Your task to perform on an android device: Search for bose quietcomfort 35 on costco.com, select the first entry, and add it to the cart. Image 0: 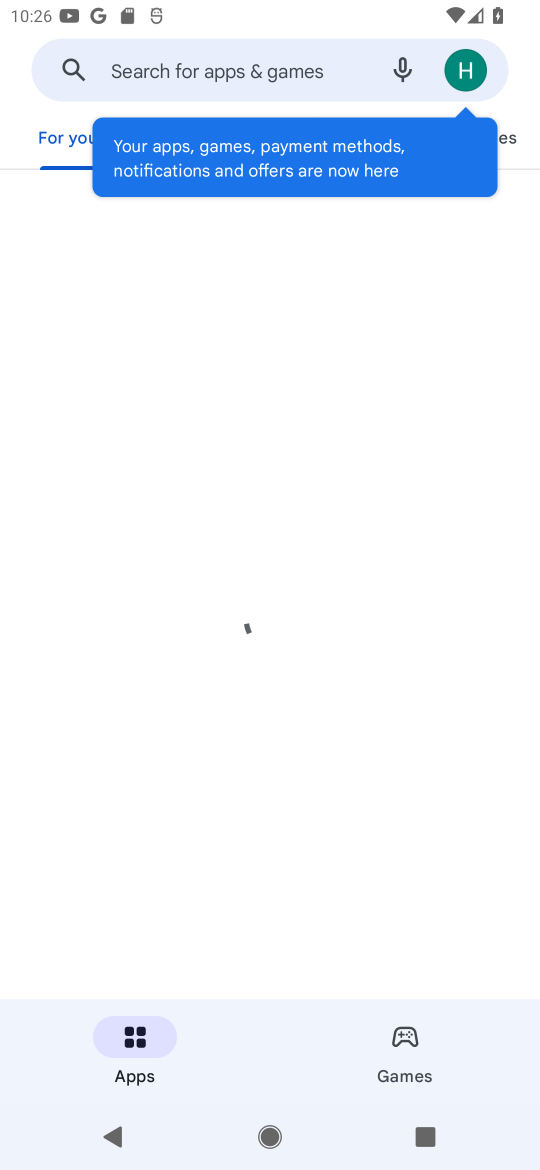
Step 0: press home button
Your task to perform on an android device: Search for bose quietcomfort 35 on costco.com, select the first entry, and add it to the cart. Image 1: 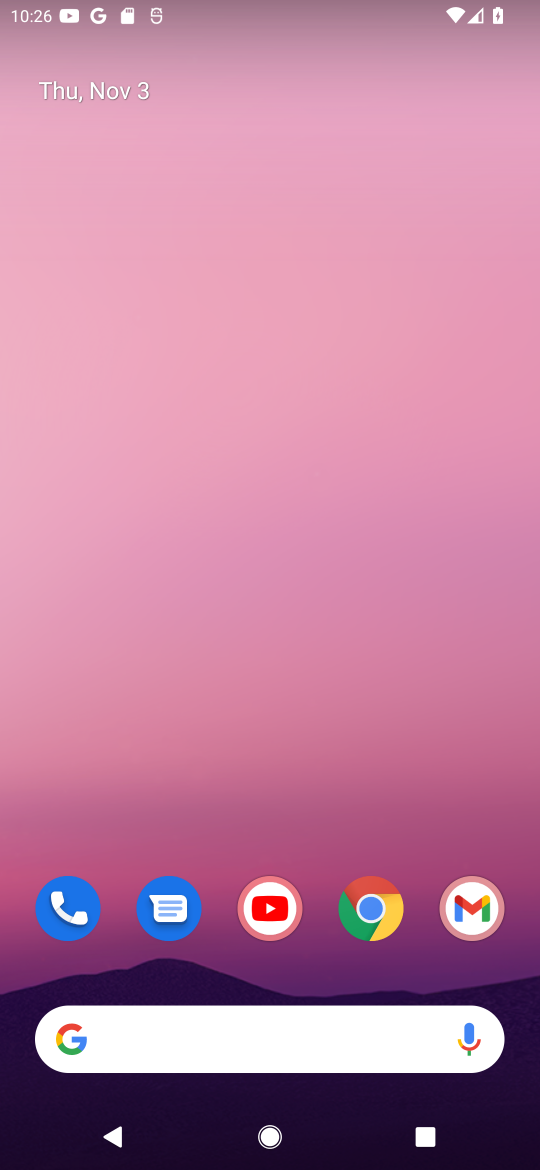
Step 1: click (363, 894)
Your task to perform on an android device: Search for bose quietcomfort 35 on costco.com, select the first entry, and add it to the cart. Image 2: 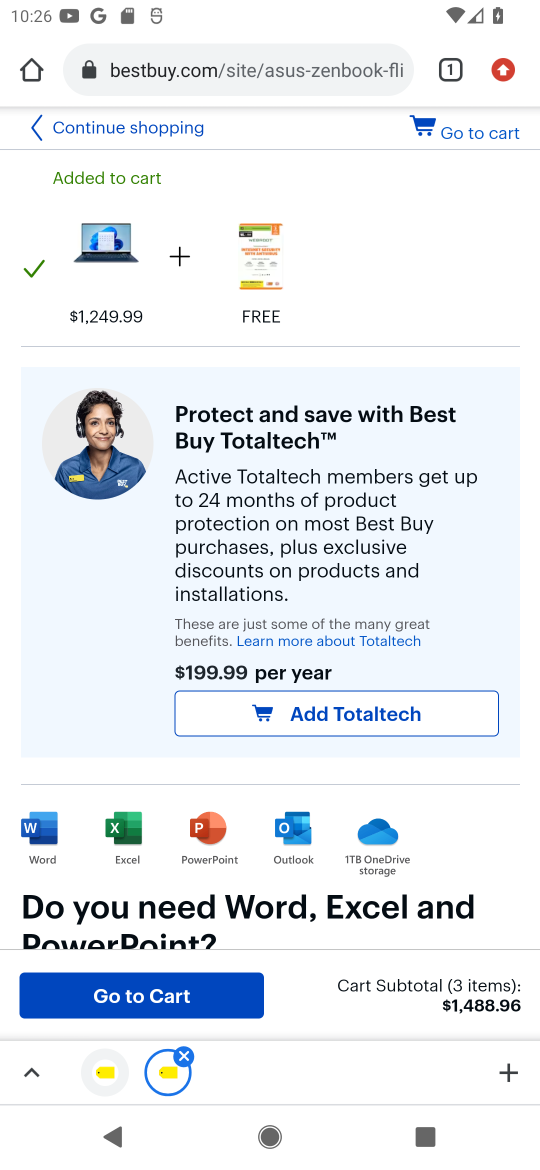
Step 2: click (249, 68)
Your task to perform on an android device: Search for bose quietcomfort 35 on costco.com, select the first entry, and add it to the cart. Image 3: 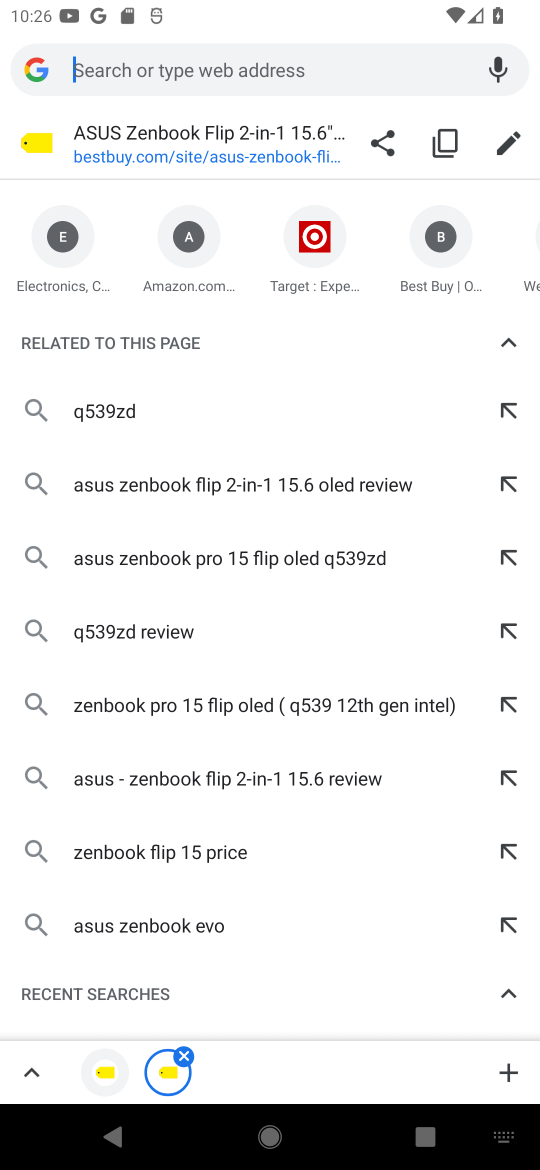
Step 3: press enter
Your task to perform on an android device: Search for bose quietcomfort 35 on costco.com, select the first entry, and add it to the cart. Image 4: 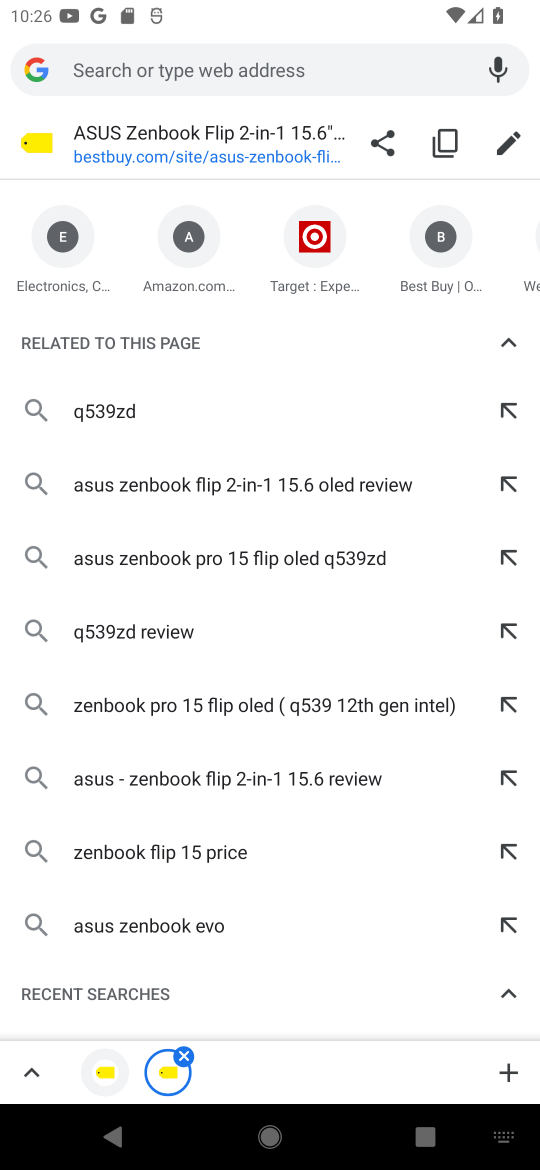
Step 4: type "costco.com"
Your task to perform on an android device: Search for bose quietcomfort 35 on costco.com, select the first entry, and add it to the cart. Image 5: 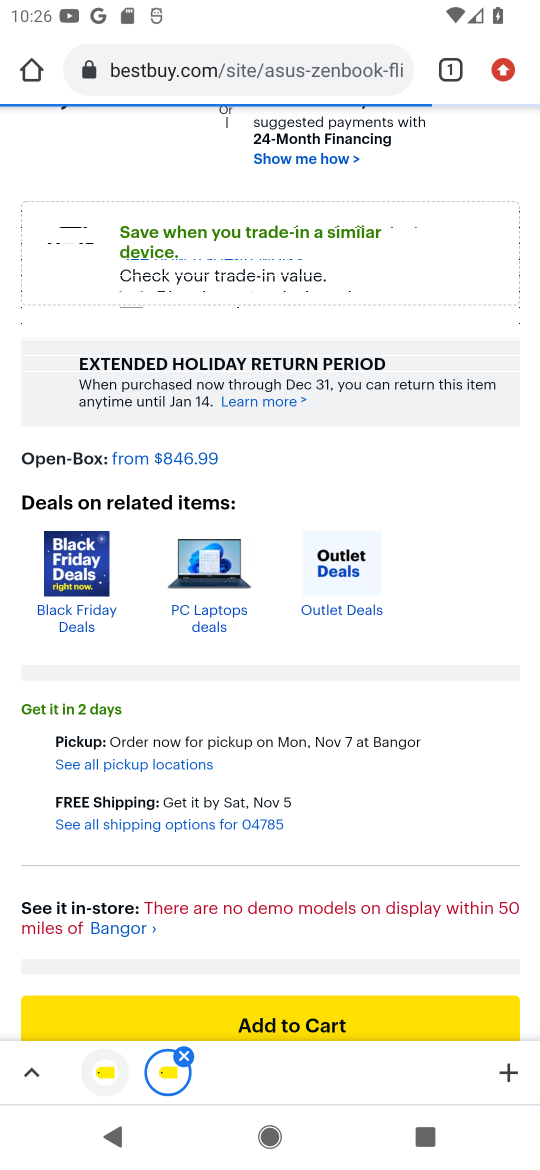
Step 5: drag from (366, 324) to (426, 912)
Your task to perform on an android device: Search for bose quietcomfort 35 on costco.com, select the first entry, and add it to the cart. Image 6: 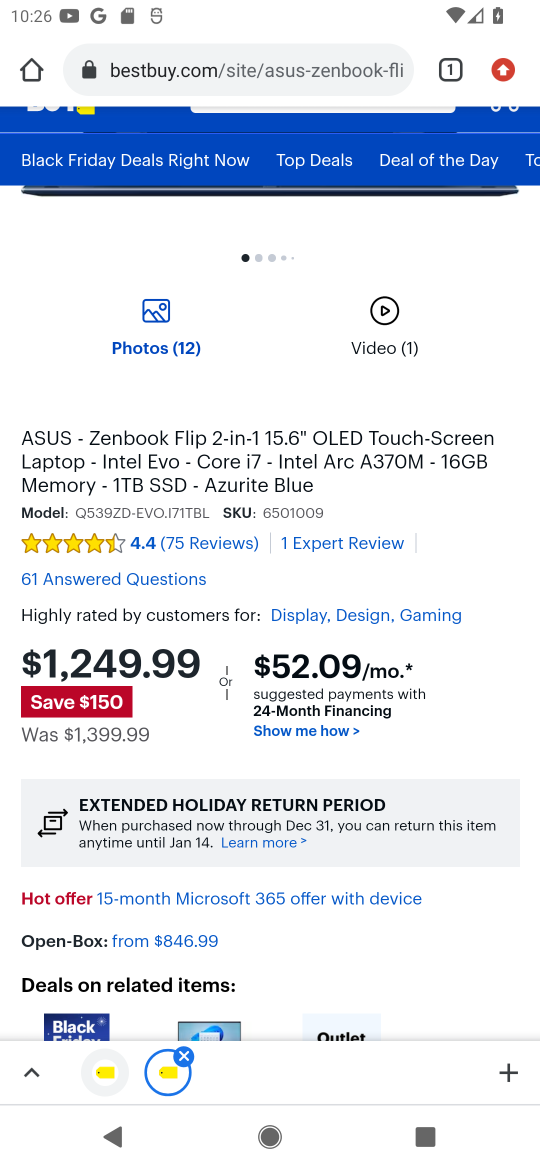
Step 6: drag from (348, 473) to (429, 982)
Your task to perform on an android device: Search for bose quietcomfort 35 on costco.com, select the first entry, and add it to the cart. Image 7: 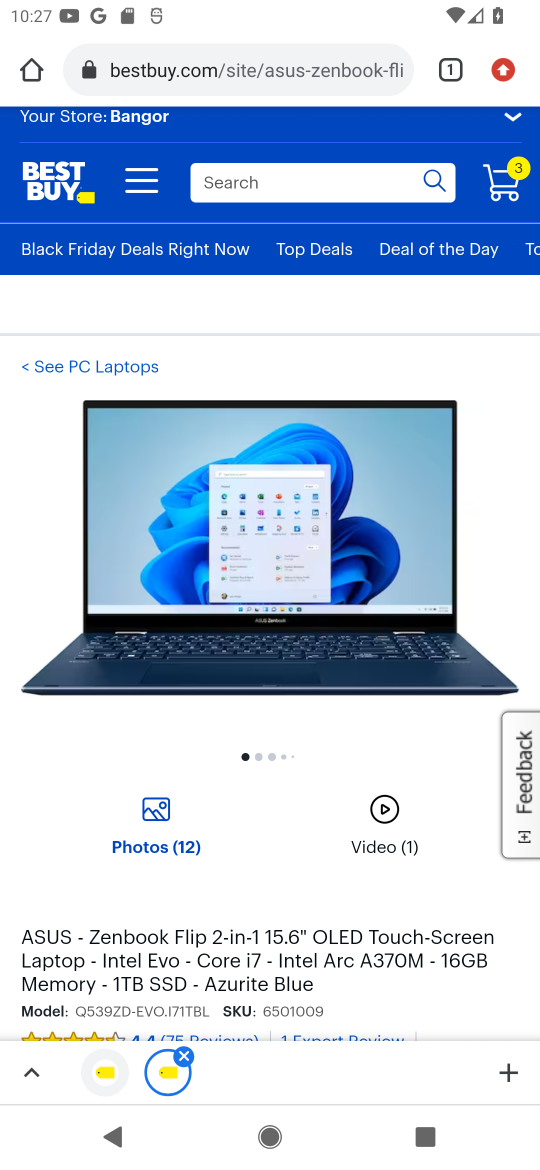
Step 7: click (282, 178)
Your task to perform on an android device: Search for bose quietcomfort 35 on costco.com, select the first entry, and add it to the cart. Image 8: 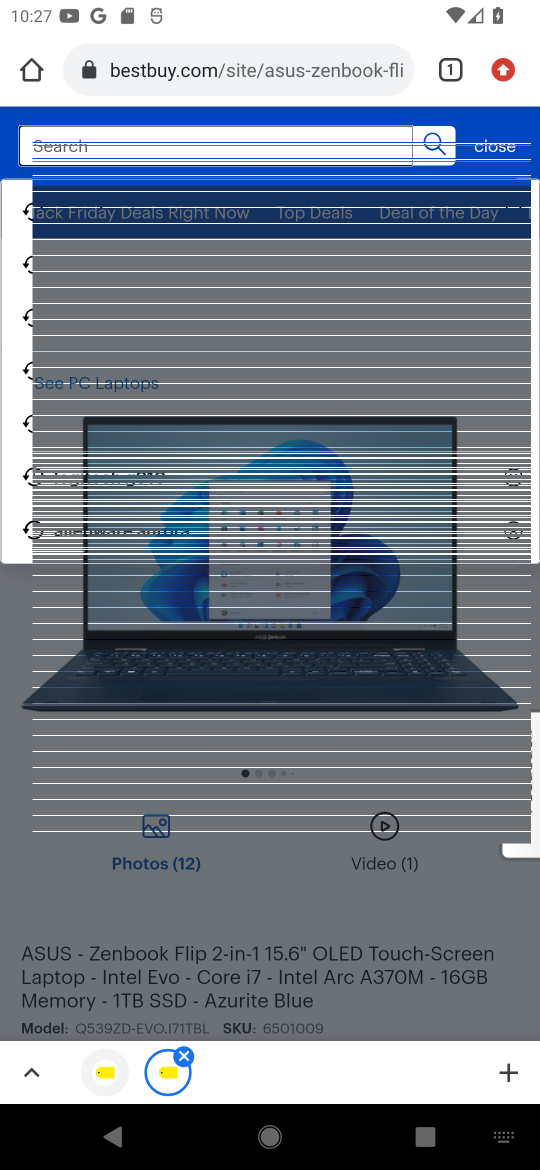
Step 8: type "bose quietcomfort 35"
Your task to perform on an android device: Search for bose quietcomfort 35 on costco.com, select the first entry, and add it to the cart. Image 9: 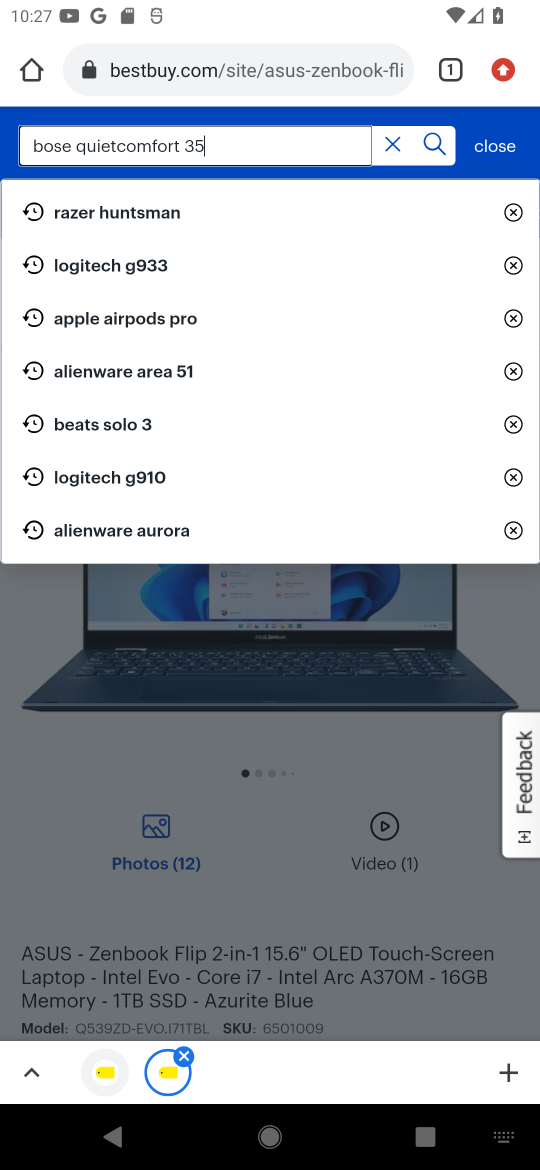
Step 9: press enter
Your task to perform on an android device: Search for bose quietcomfort 35 on costco.com, select the first entry, and add it to the cart. Image 10: 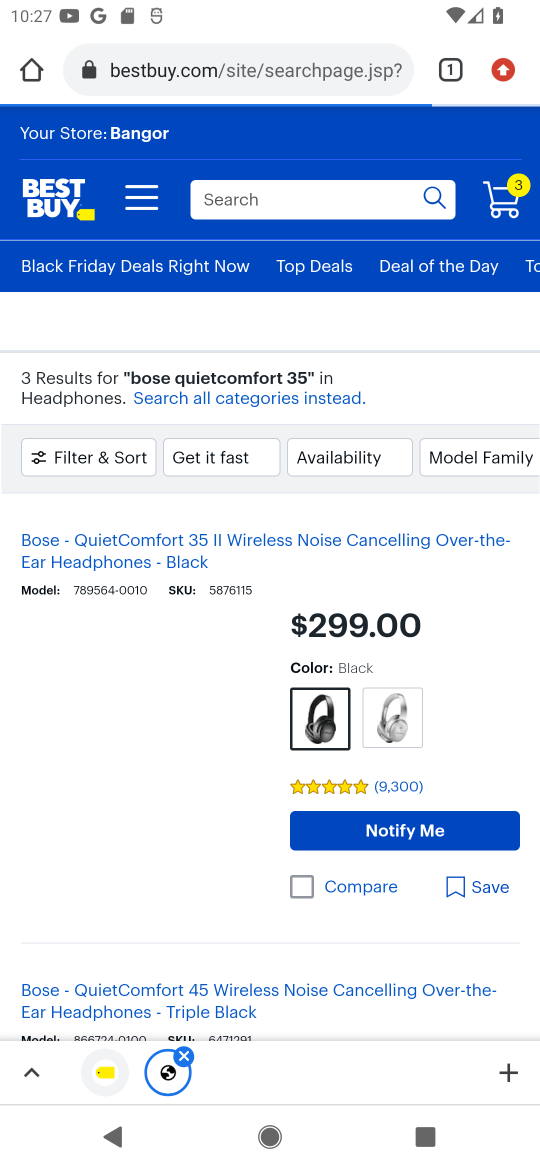
Step 10: click (356, 502)
Your task to perform on an android device: Search for bose quietcomfort 35 on costco.com, select the first entry, and add it to the cart. Image 11: 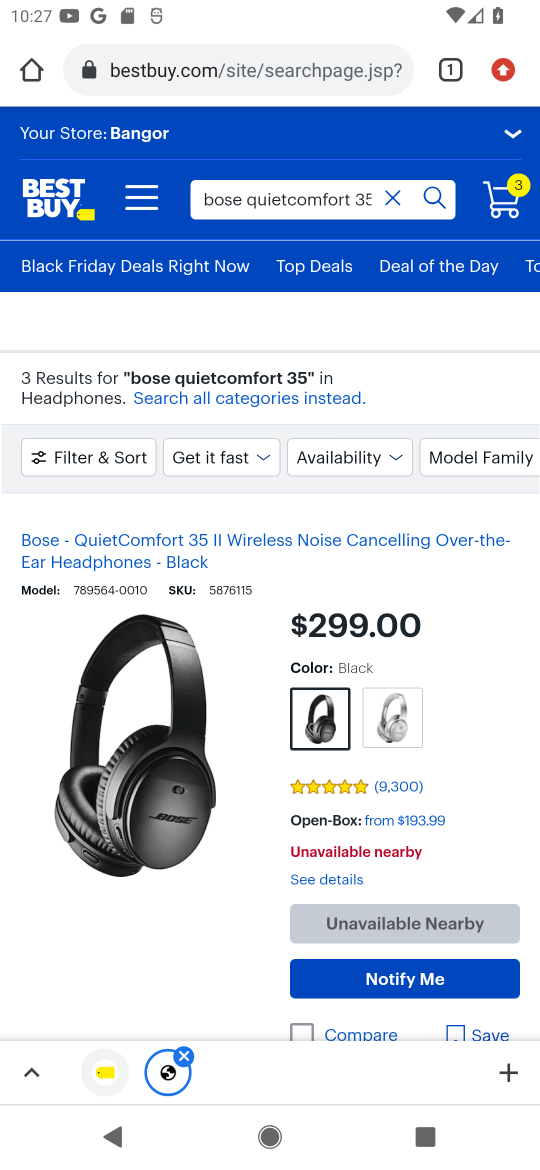
Step 11: click (163, 742)
Your task to perform on an android device: Search for bose quietcomfort 35 on costco.com, select the first entry, and add it to the cart. Image 12: 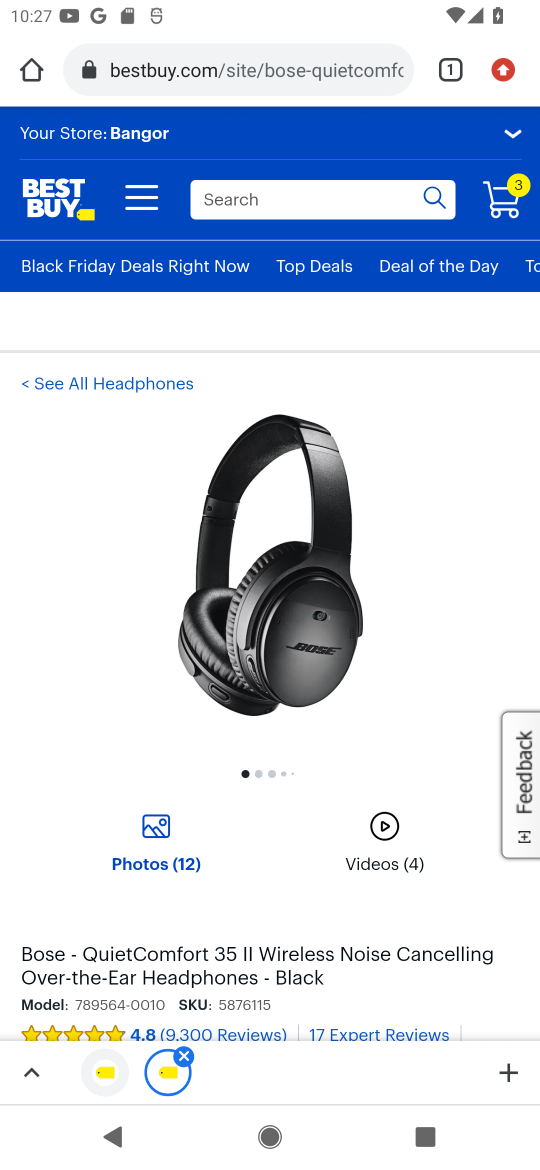
Step 12: drag from (345, 871) to (391, 549)
Your task to perform on an android device: Search for bose quietcomfort 35 on costco.com, select the first entry, and add it to the cart. Image 13: 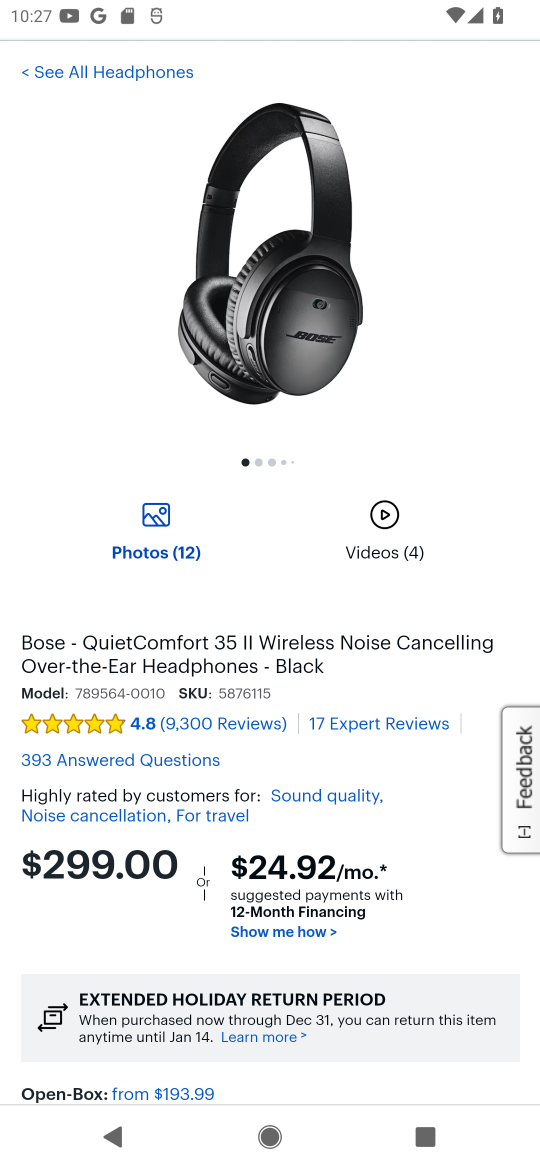
Step 13: drag from (424, 883) to (430, 557)
Your task to perform on an android device: Search for bose quietcomfort 35 on costco.com, select the first entry, and add it to the cart. Image 14: 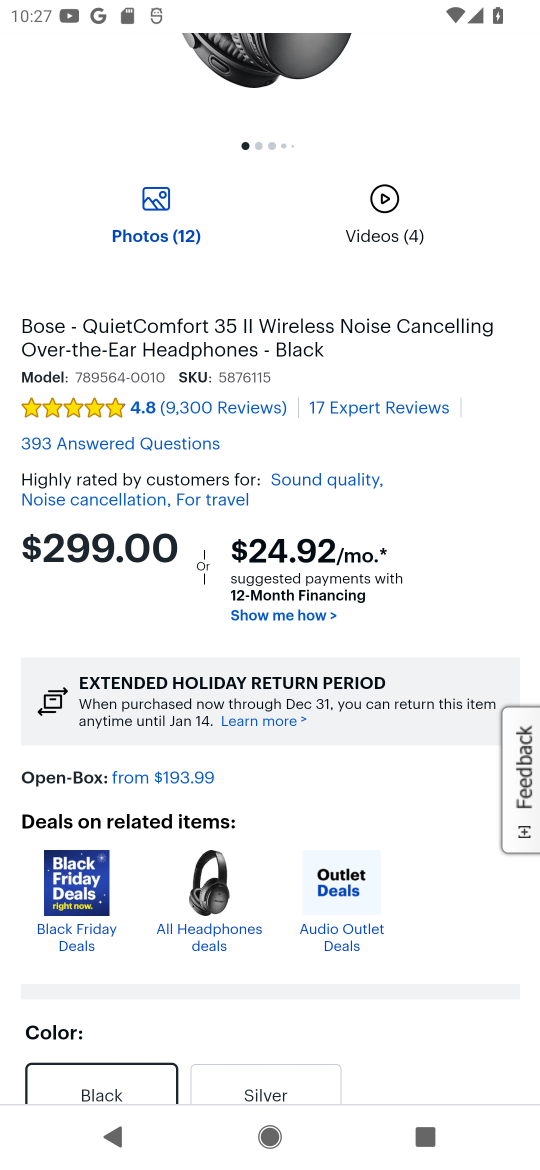
Step 14: drag from (451, 933) to (439, 544)
Your task to perform on an android device: Search for bose quietcomfort 35 on costco.com, select the first entry, and add it to the cart. Image 15: 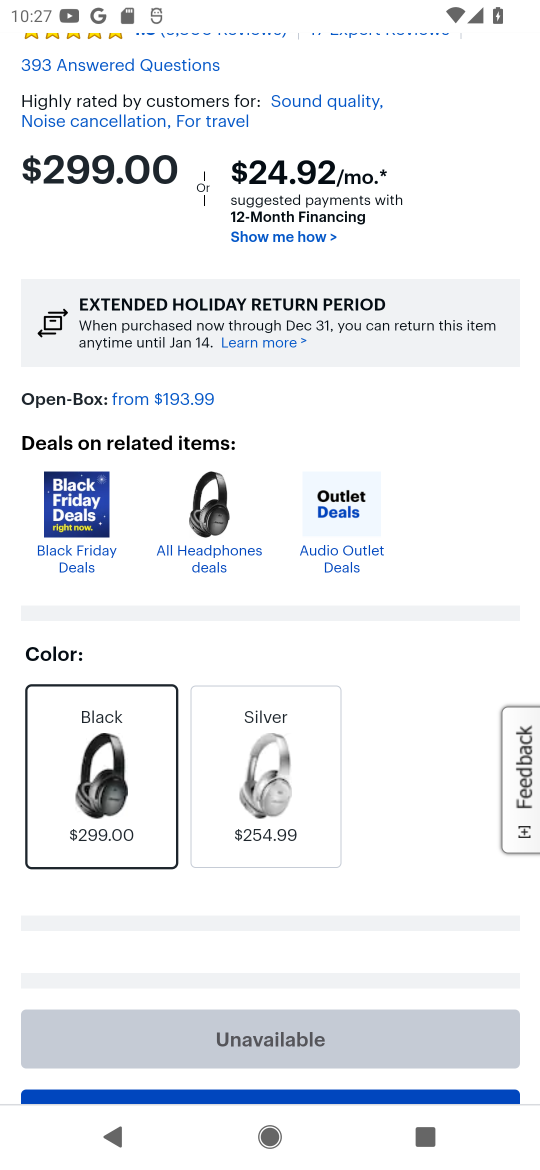
Step 15: press back button
Your task to perform on an android device: Search for bose quietcomfort 35 on costco.com, select the first entry, and add it to the cart. Image 16: 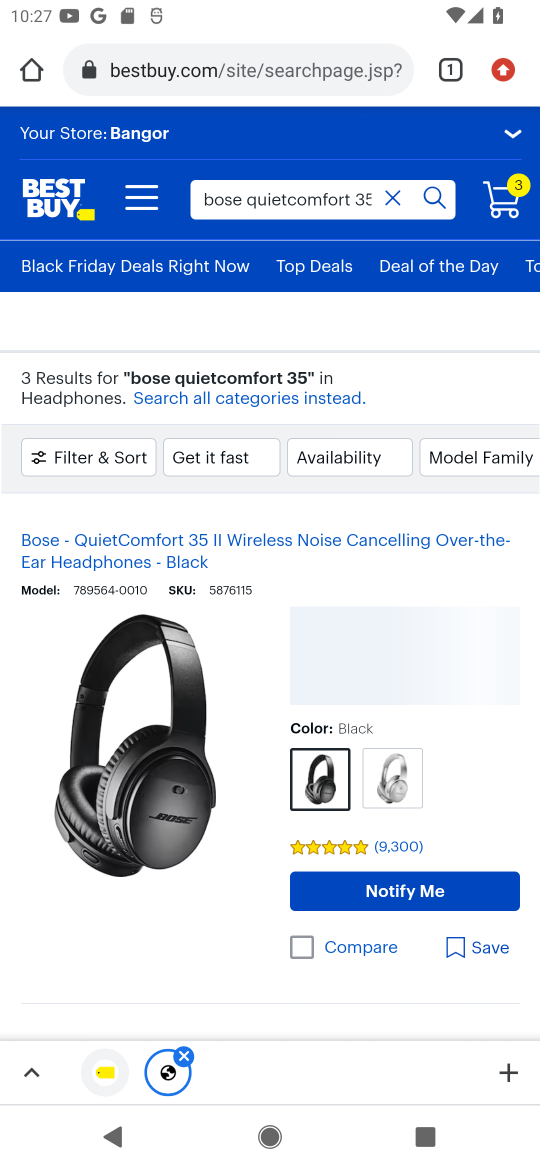
Step 16: drag from (425, 824) to (511, 328)
Your task to perform on an android device: Search for bose quietcomfort 35 on costco.com, select the first entry, and add it to the cart. Image 17: 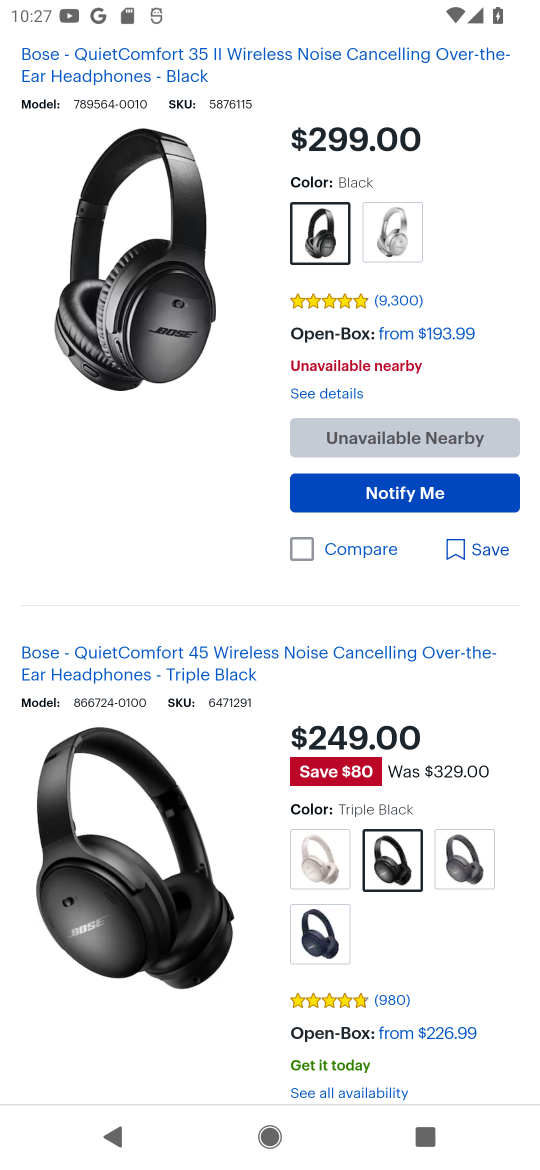
Step 17: drag from (202, 670) to (281, 380)
Your task to perform on an android device: Search for bose quietcomfort 35 on costco.com, select the first entry, and add it to the cart. Image 18: 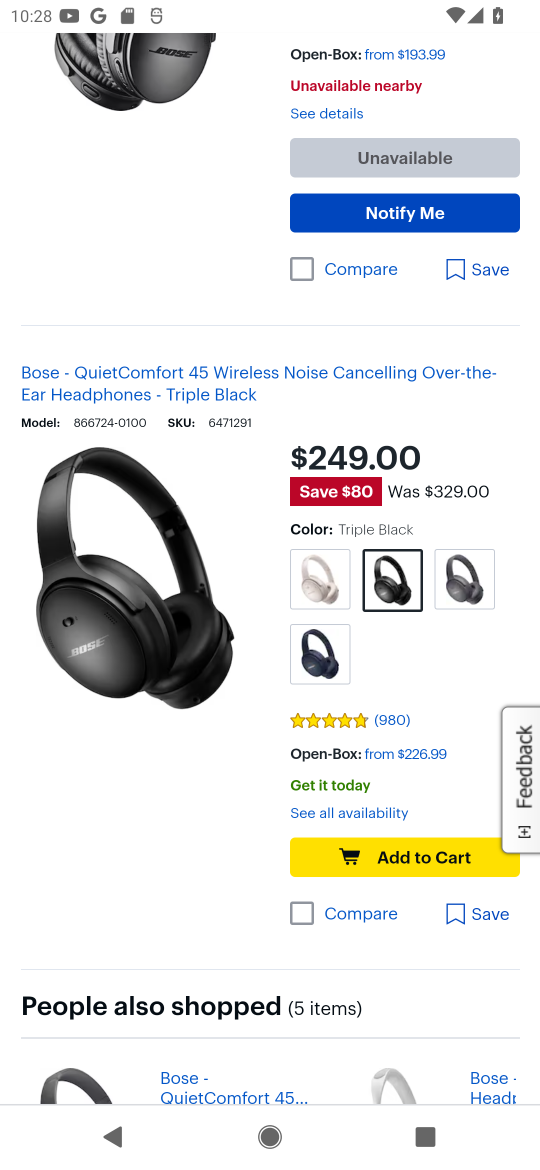
Step 18: drag from (190, 866) to (195, 394)
Your task to perform on an android device: Search for bose quietcomfort 35 on costco.com, select the first entry, and add it to the cart. Image 19: 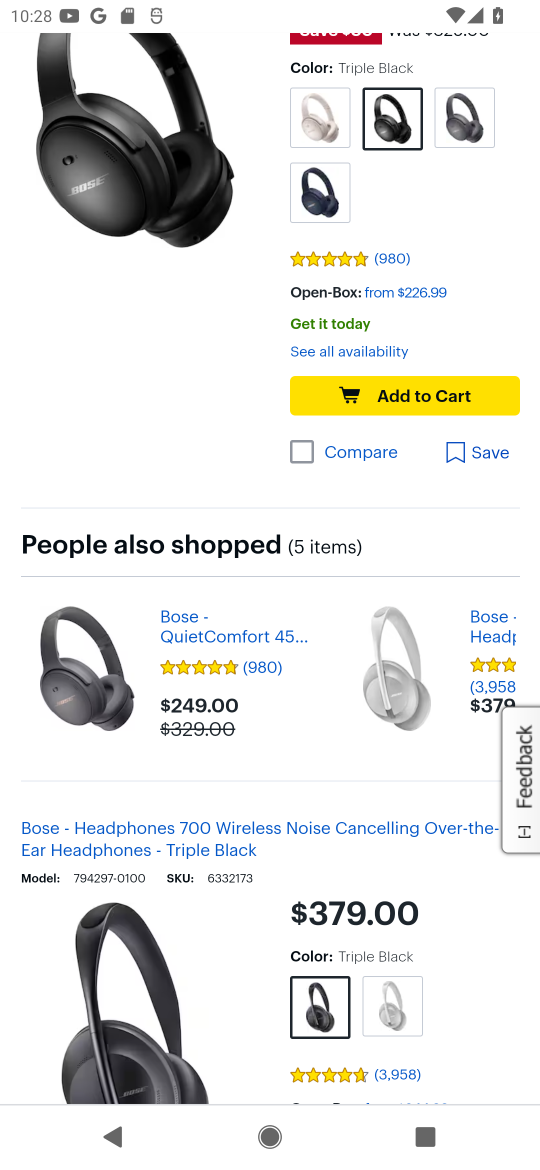
Step 19: drag from (449, 656) to (147, 636)
Your task to perform on an android device: Search for bose quietcomfort 35 on costco.com, select the first entry, and add it to the cart. Image 20: 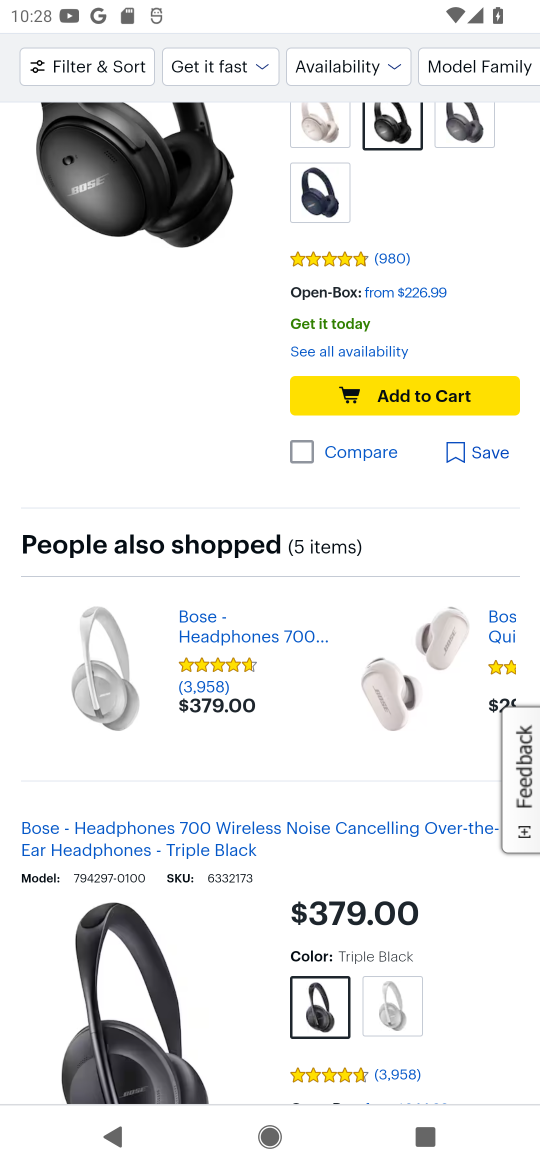
Step 20: drag from (215, 887) to (276, 530)
Your task to perform on an android device: Search for bose quietcomfort 35 on costco.com, select the first entry, and add it to the cart. Image 21: 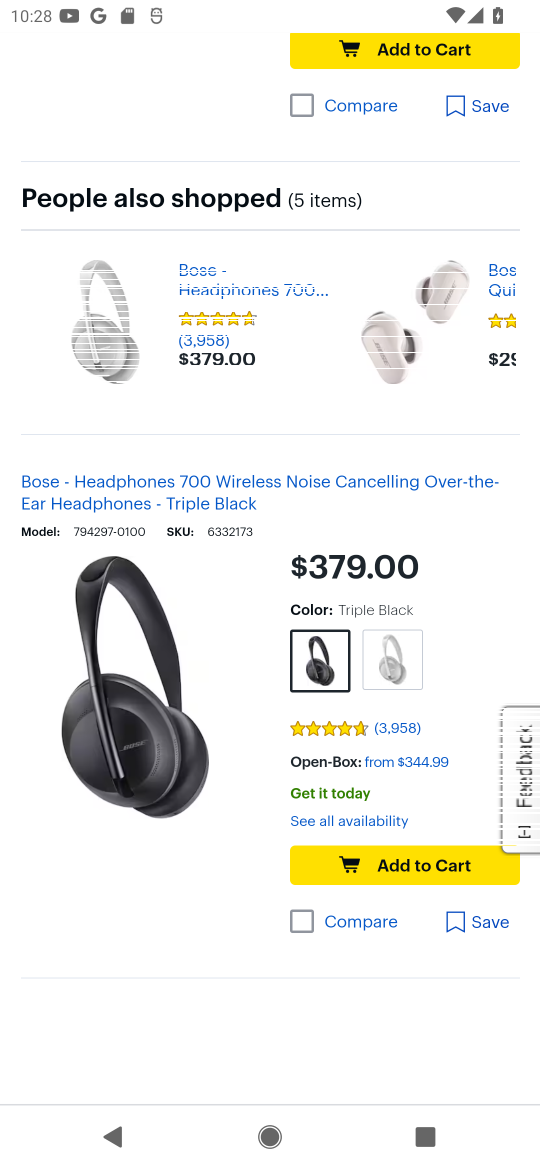
Step 21: drag from (239, 806) to (239, 450)
Your task to perform on an android device: Search for bose quietcomfort 35 on costco.com, select the first entry, and add it to the cart. Image 22: 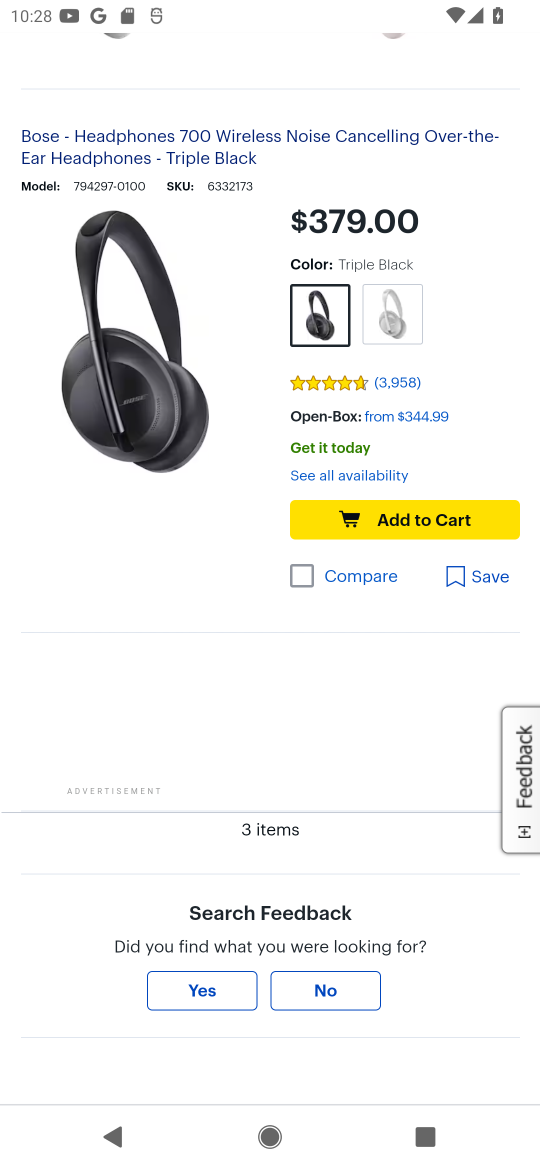
Step 22: press back button
Your task to perform on an android device: Search for bose quietcomfort 35 on costco.com, select the first entry, and add it to the cart. Image 23: 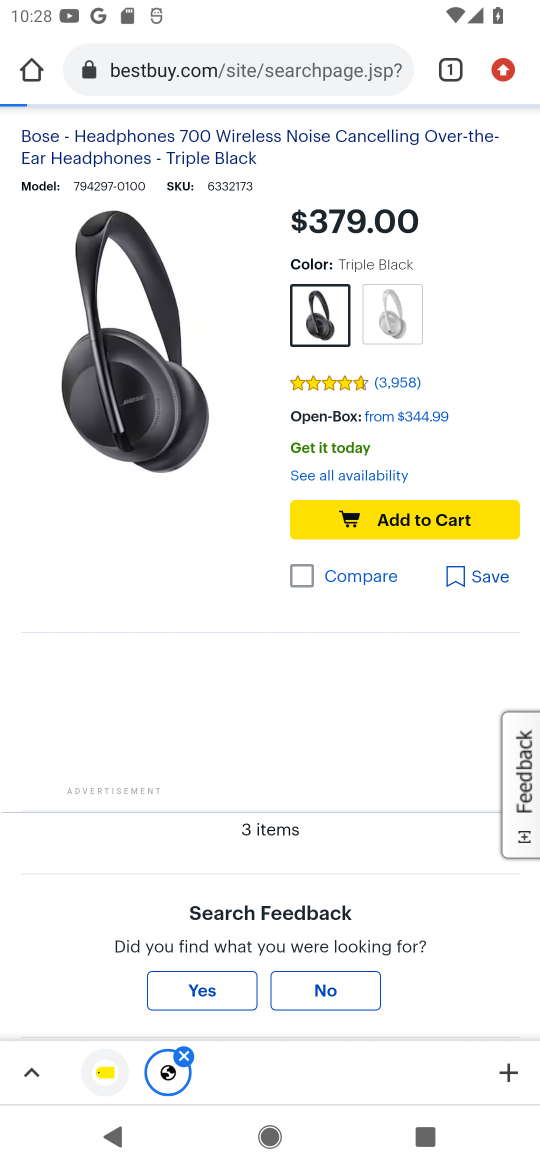
Step 23: press back button
Your task to perform on an android device: Search for bose quietcomfort 35 on costco.com, select the first entry, and add it to the cart. Image 24: 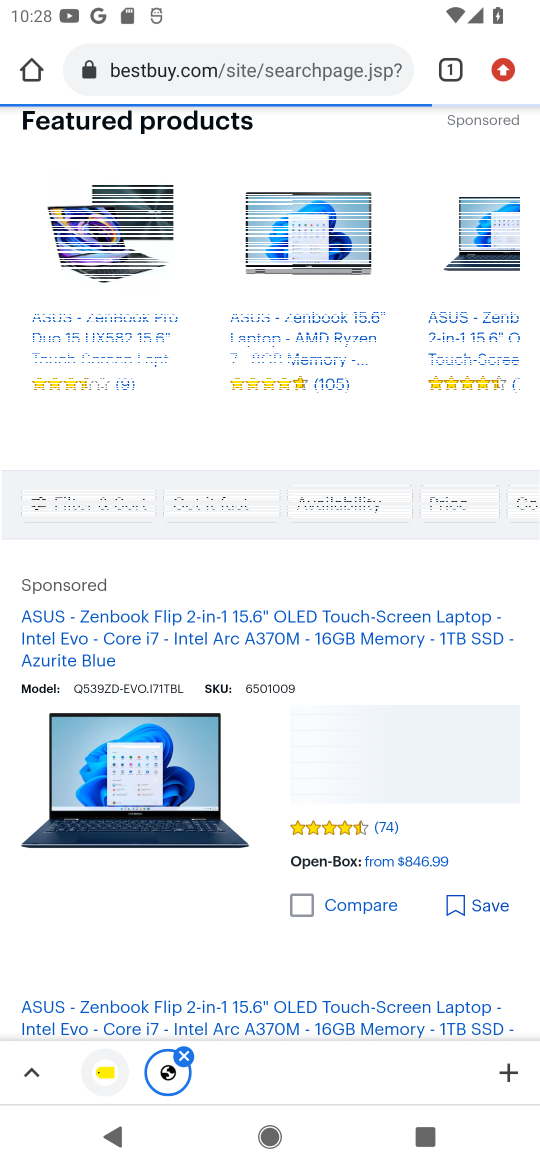
Step 24: drag from (312, 275) to (322, 610)
Your task to perform on an android device: Search for bose quietcomfort 35 on costco.com, select the first entry, and add it to the cart. Image 25: 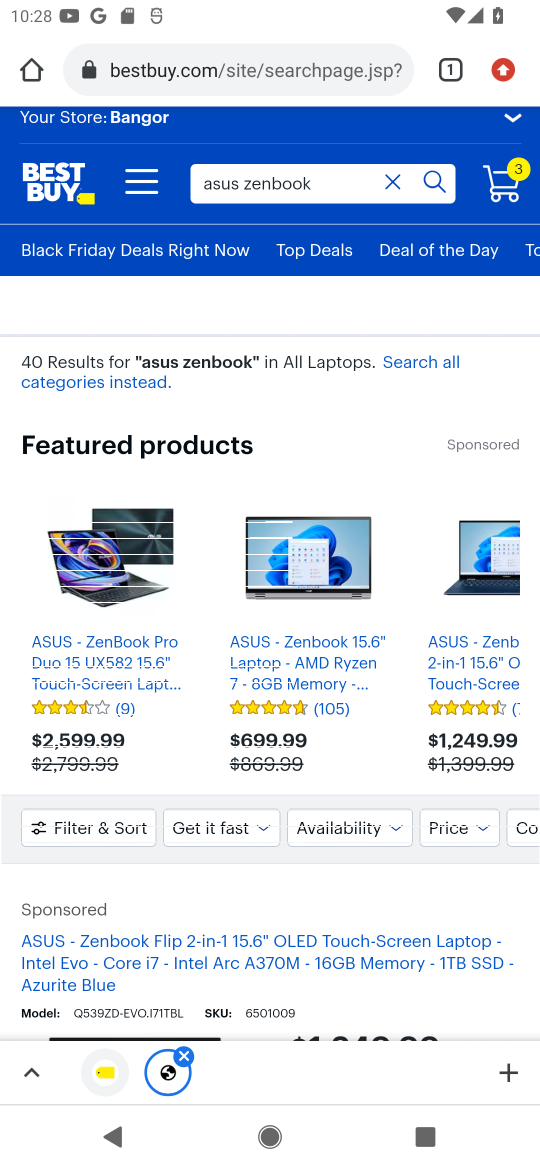
Step 25: click (340, 180)
Your task to perform on an android device: Search for bose quietcomfort 35 on costco.com, select the first entry, and add it to the cart. Image 26: 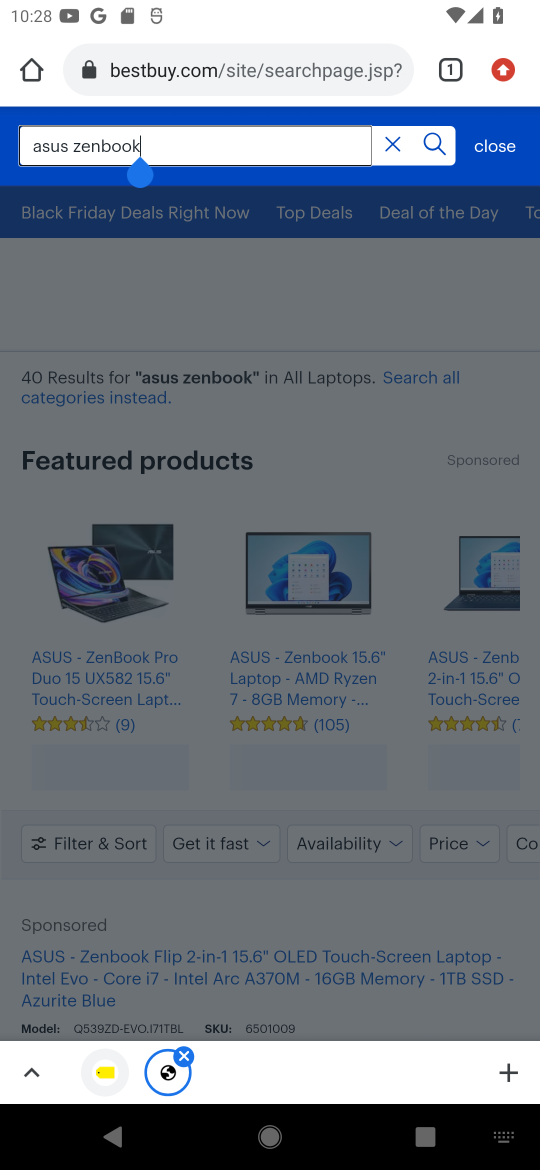
Step 26: click (401, 149)
Your task to perform on an android device: Search for bose quietcomfort 35 on costco.com, select the first entry, and add it to the cart. Image 27: 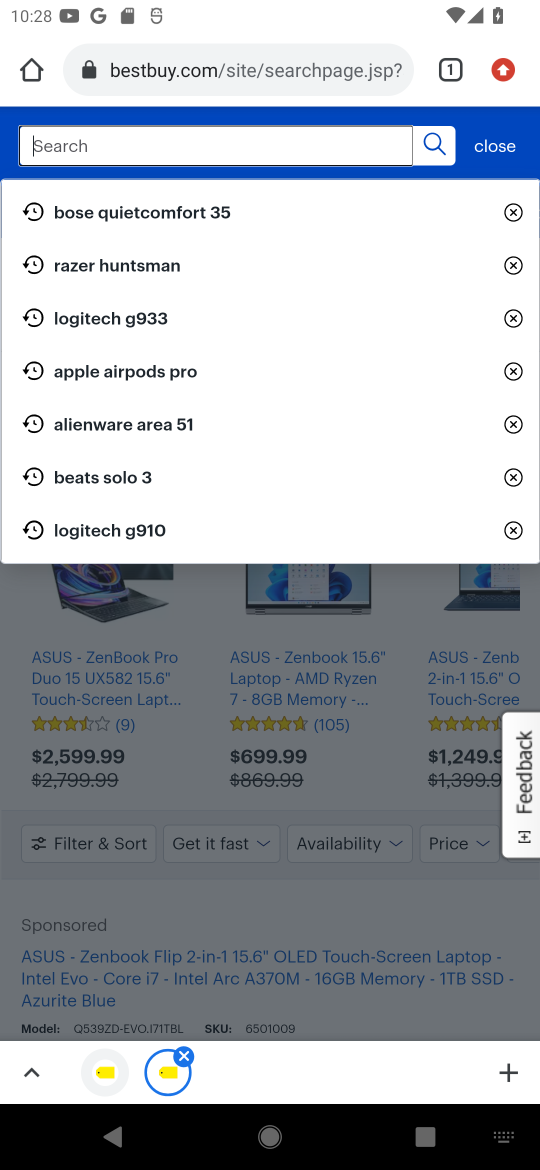
Step 27: click (158, 208)
Your task to perform on an android device: Search for bose quietcomfort 35 on costco.com, select the first entry, and add it to the cart. Image 28: 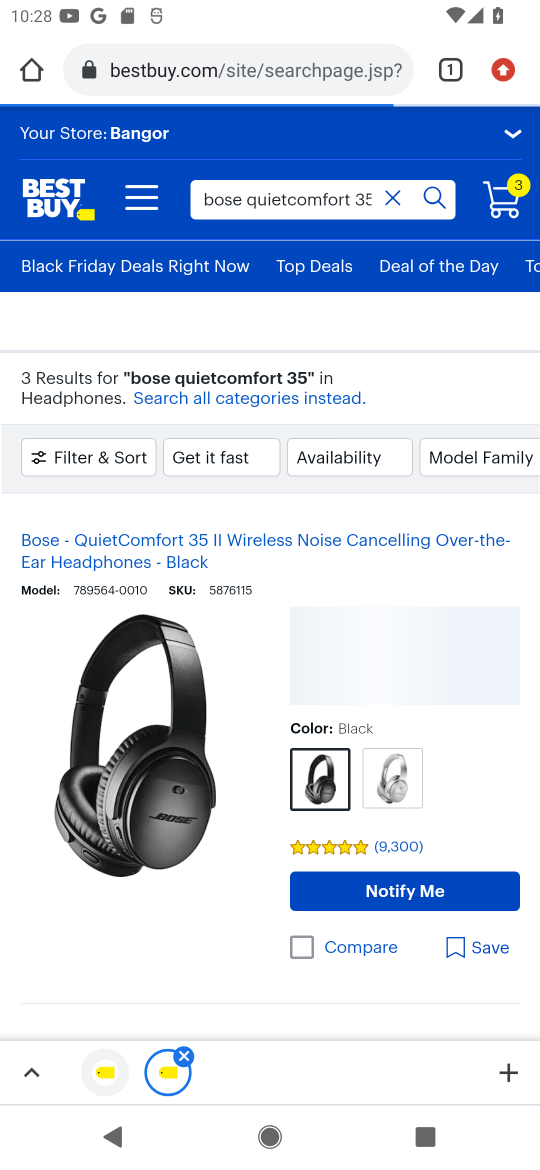
Step 28: drag from (385, 588) to (465, 335)
Your task to perform on an android device: Search for bose quietcomfort 35 on costco.com, select the first entry, and add it to the cart. Image 29: 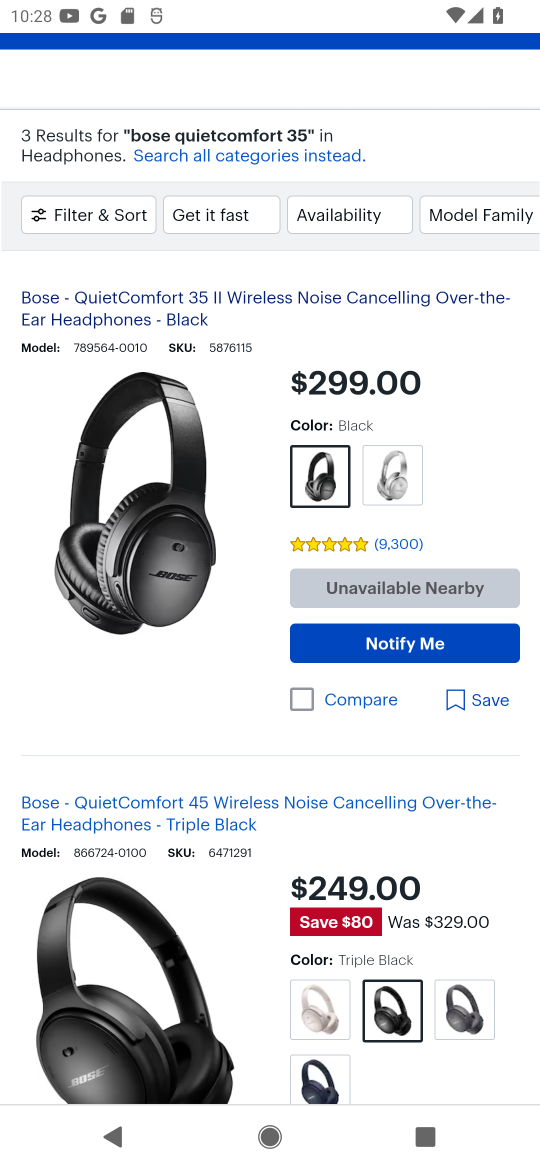
Step 29: click (197, 517)
Your task to perform on an android device: Search for bose quietcomfort 35 on costco.com, select the first entry, and add it to the cart. Image 30: 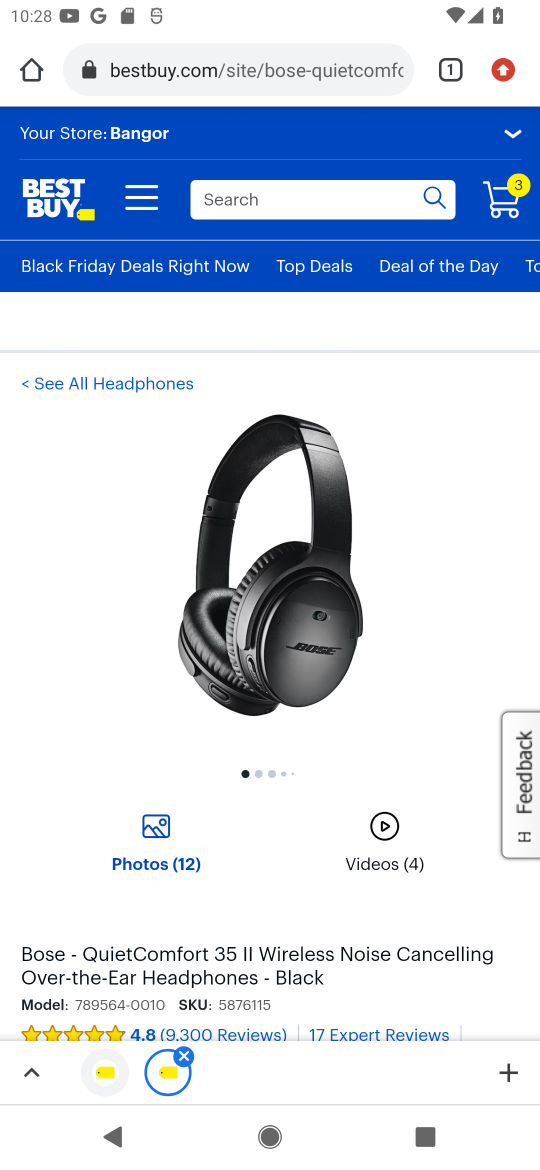
Step 30: task complete